Your task to perform on an android device: turn on improve location accuracy Image 0: 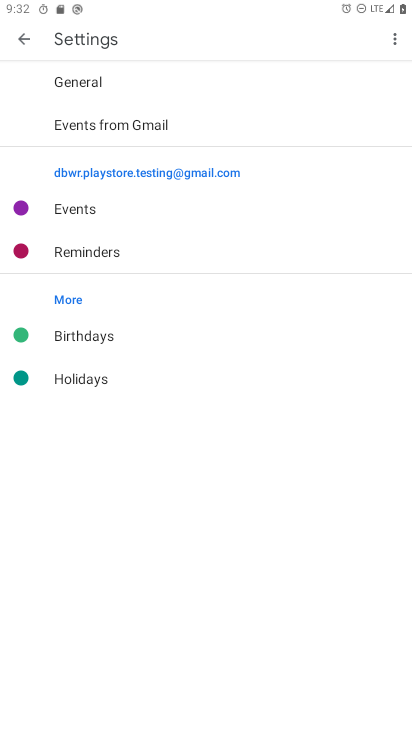
Step 0: drag from (327, 640) to (334, 221)
Your task to perform on an android device: turn on improve location accuracy Image 1: 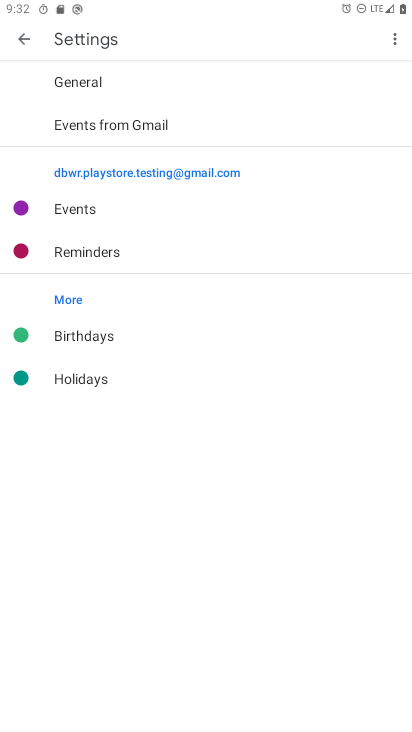
Step 1: press home button
Your task to perform on an android device: turn on improve location accuracy Image 2: 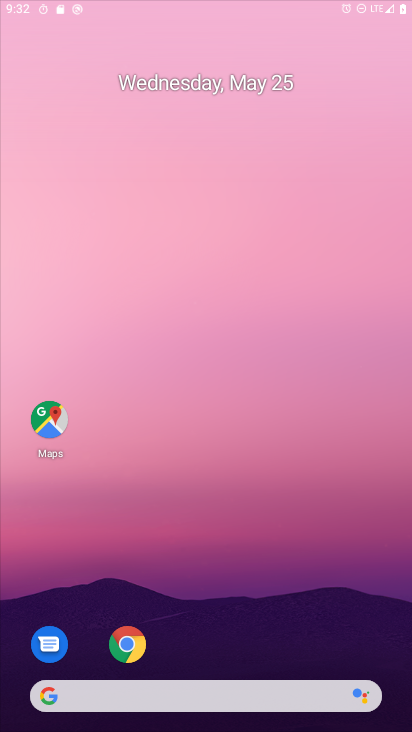
Step 2: drag from (315, 651) to (246, 60)
Your task to perform on an android device: turn on improve location accuracy Image 3: 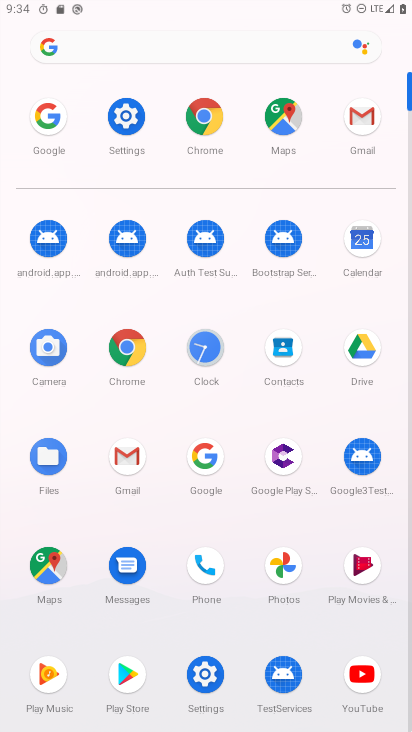
Step 3: click (196, 676)
Your task to perform on an android device: turn on improve location accuracy Image 4: 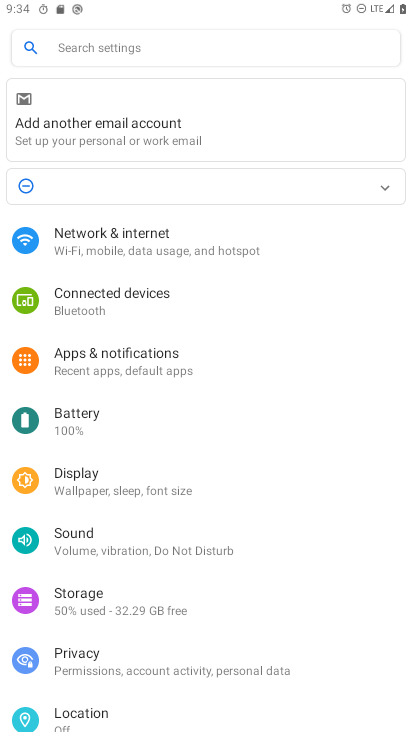
Step 4: click (115, 710)
Your task to perform on an android device: turn on improve location accuracy Image 5: 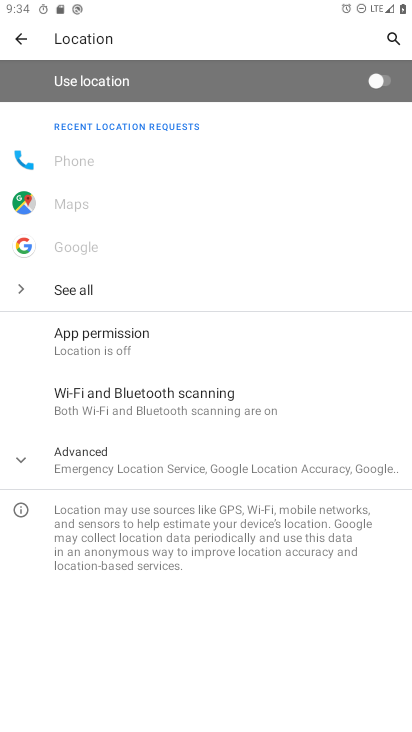
Step 5: click (186, 458)
Your task to perform on an android device: turn on improve location accuracy Image 6: 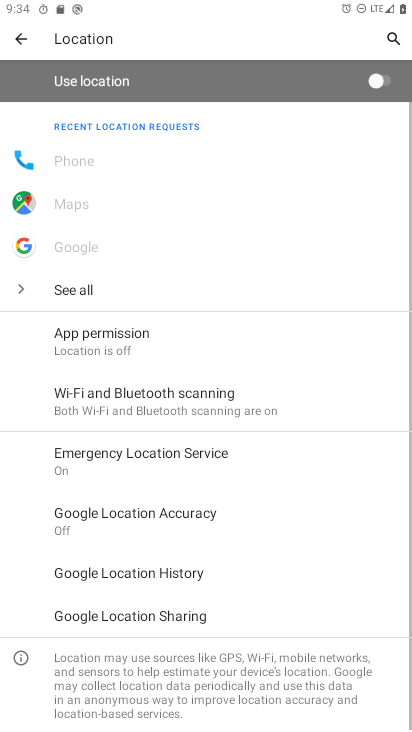
Step 6: click (162, 518)
Your task to perform on an android device: turn on improve location accuracy Image 7: 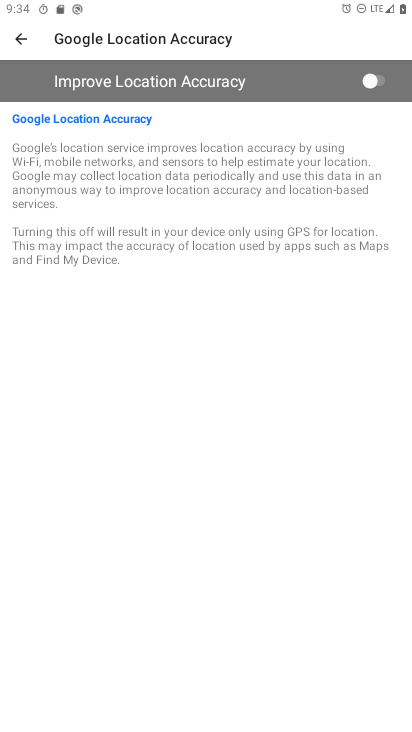
Step 7: click (381, 78)
Your task to perform on an android device: turn on improve location accuracy Image 8: 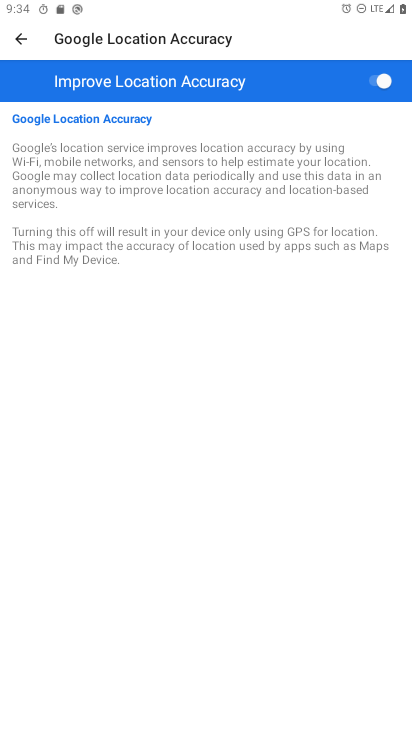
Step 8: task complete